Your task to perform on an android device: star an email in the gmail app Image 0: 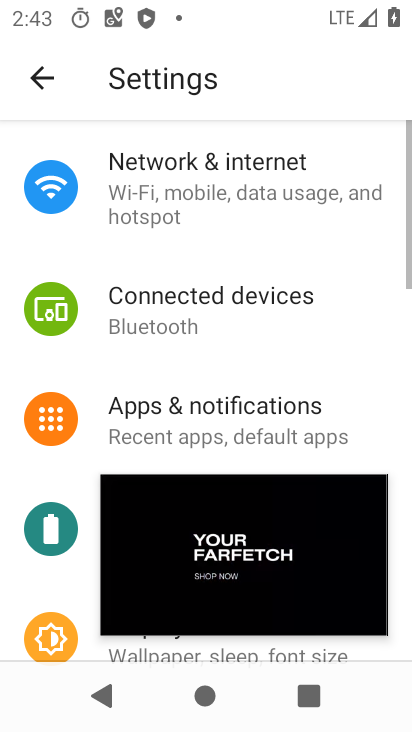
Step 0: press home button
Your task to perform on an android device: star an email in the gmail app Image 1: 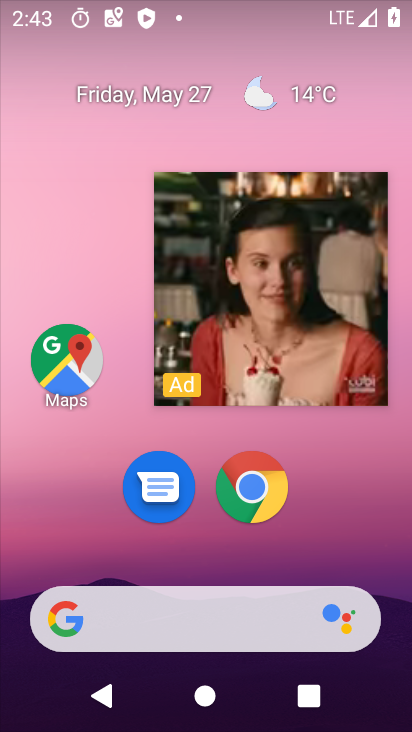
Step 1: click (284, 202)
Your task to perform on an android device: star an email in the gmail app Image 2: 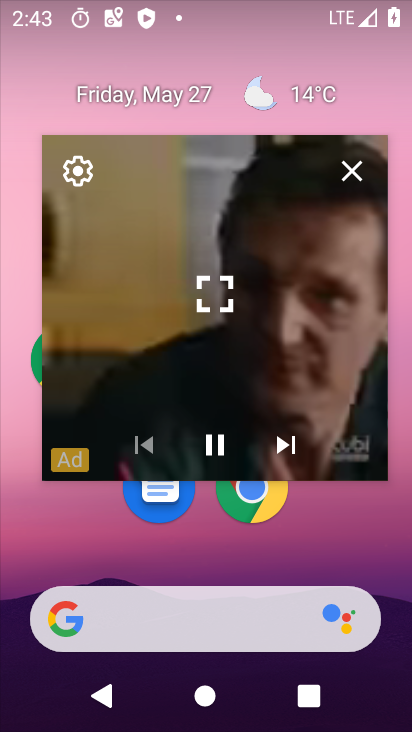
Step 2: click (361, 167)
Your task to perform on an android device: star an email in the gmail app Image 3: 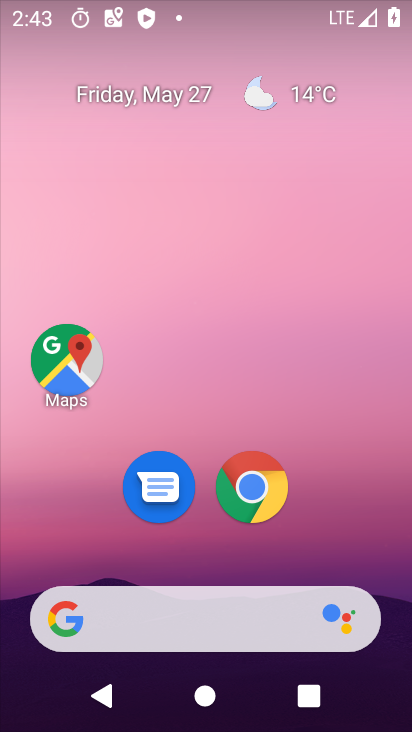
Step 3: drag from (358, 444) to (369, 120)
Your task to perform on an android device: star an email in the gmail app Image 4: 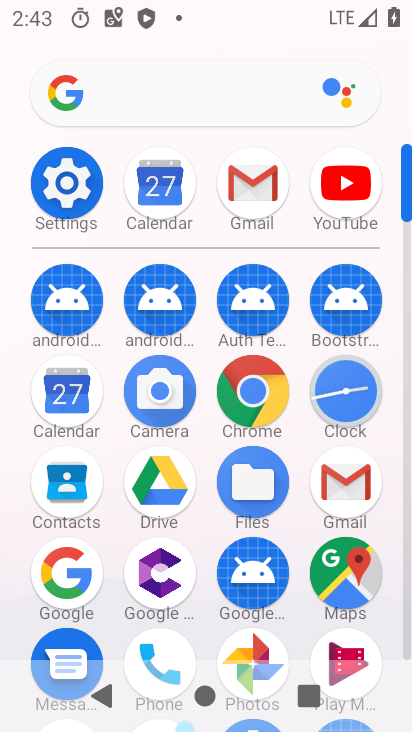
Step 4: click (261, 187)
Your task to perform on an android device: star an email in the gmail app Image 5: 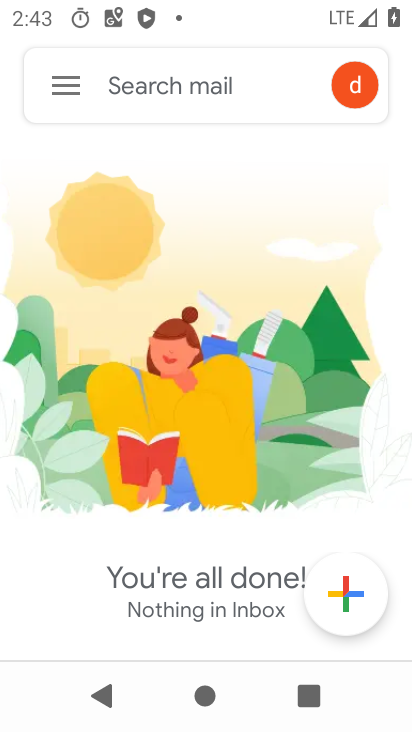
Step 5: click (64, 85)
Your task to perform on an android device: star an email in the gmail app Image 6: 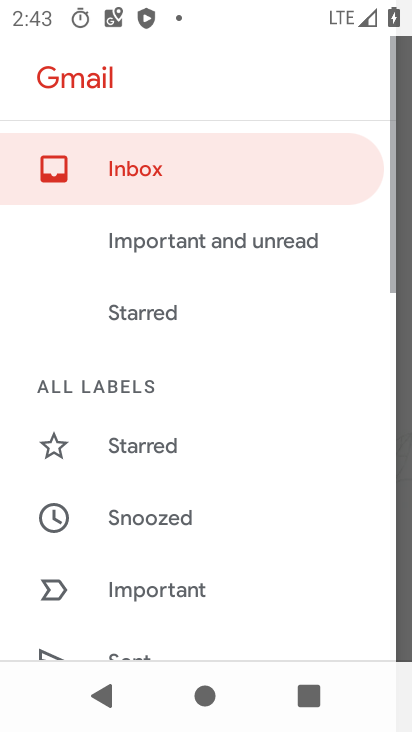
Step 6: drag from (210, 580) to (367, 30)
Your task to perform on an android device: star an email in the gmail app Image 7: 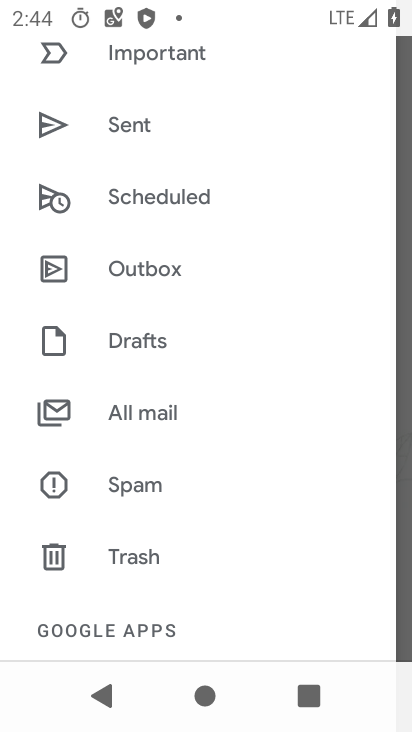
Step 7: click (142, 413)
Your task to perform on an android device: star an email in the gmail app Image 8: 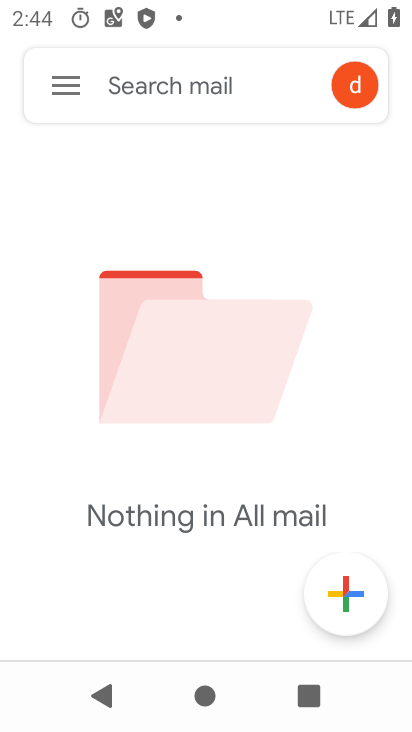
Step 8: task complete